Your task to perform on an android device: Check the weather Image 0: 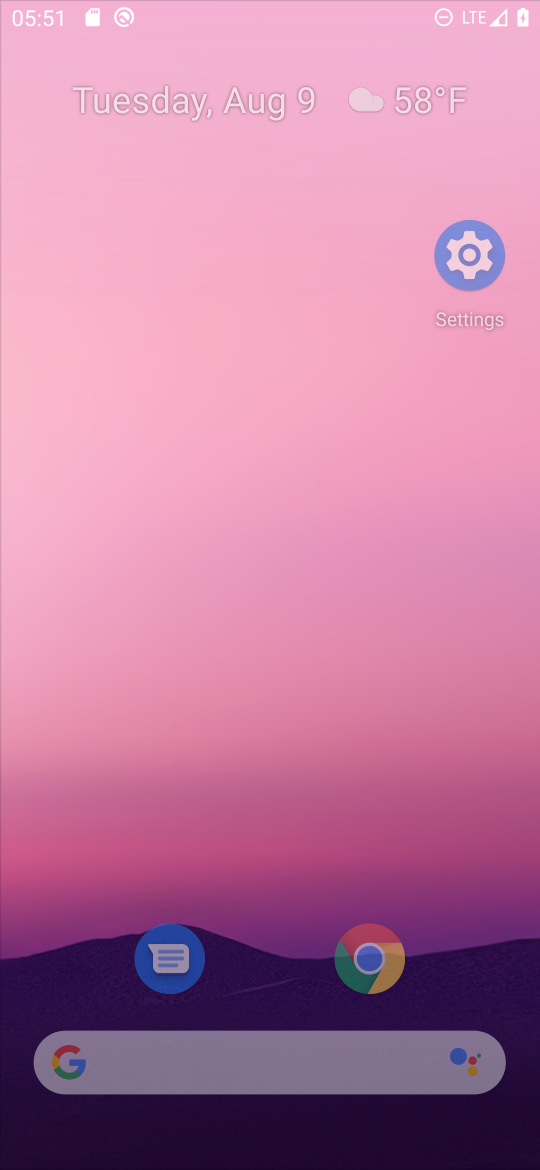
Step 0: drag from (307, 1106) to (531, 619)
Your task to perform on an android device: Check the weather Image 1: 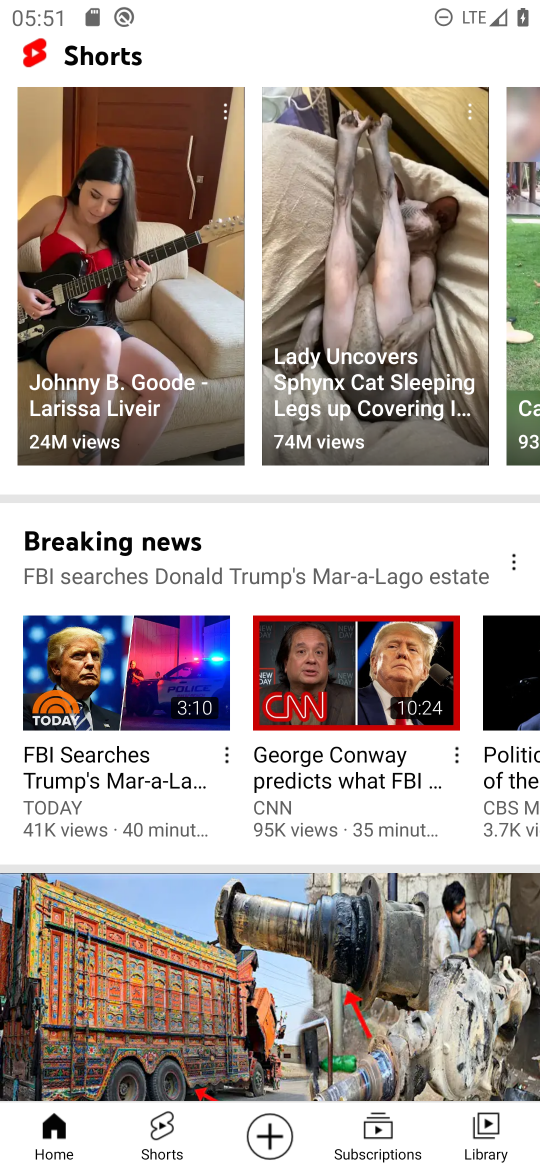
Step 1: press home button
Your task to perform on an android device: Check the weather Image 2: 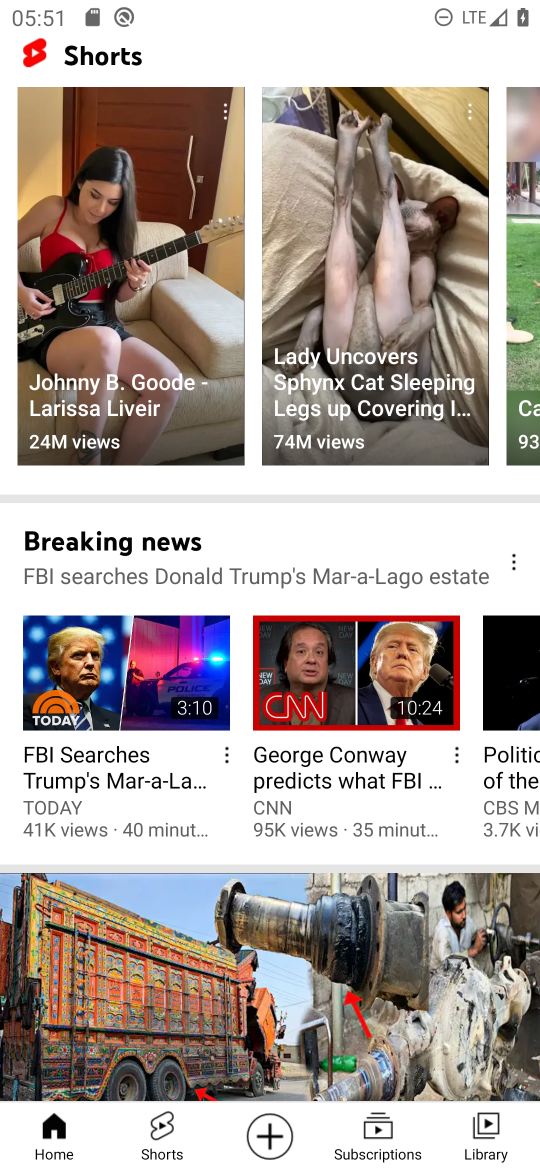
Step 2: drag from (539, 860) to (499, 370)
Your task to perform on an android device: Check the weather Image 3: 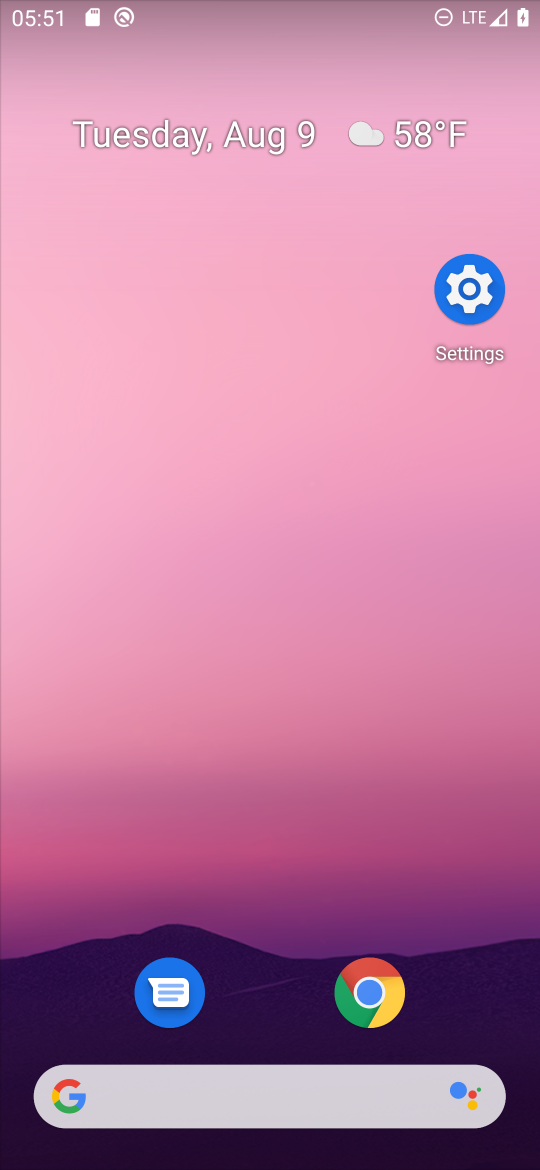
Step 3: click (296, 574)
Your task to perform on an android device: Check the weather Image 4: 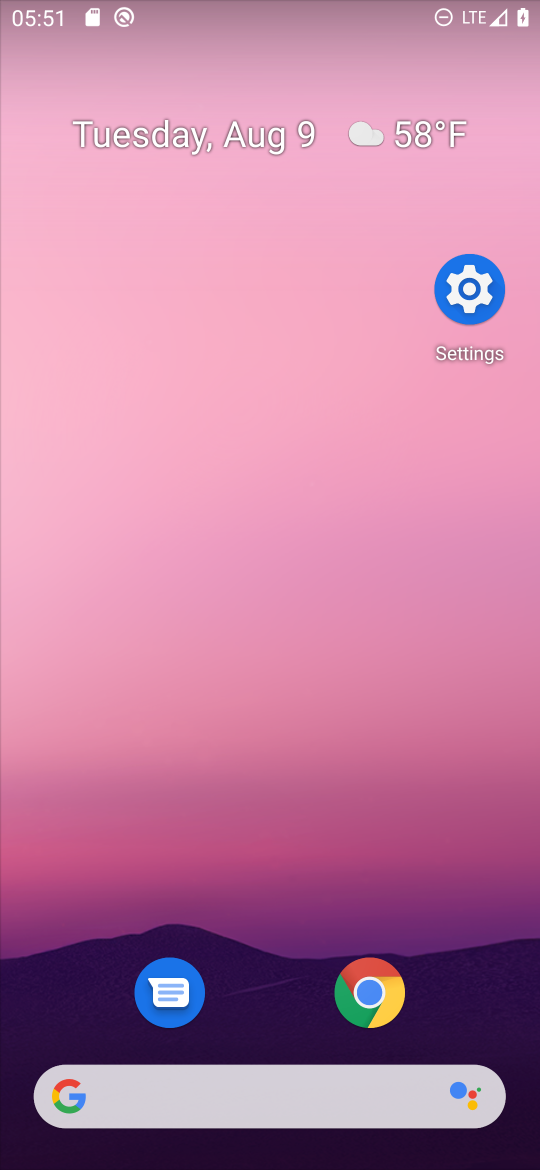
Step 4: task complete